Your task to perform on an android device: set an alarm Image 0: 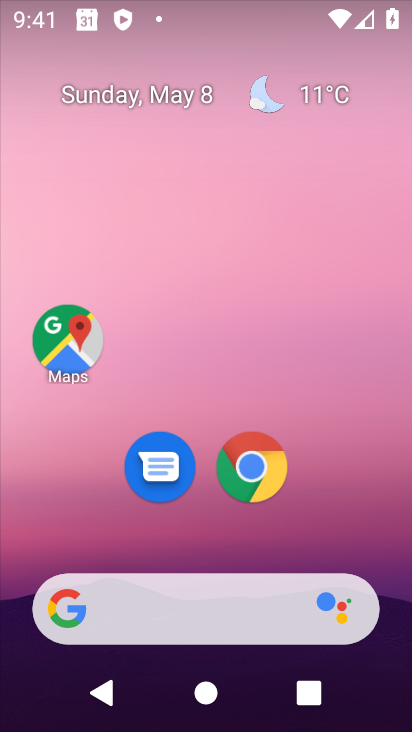
Step 0: drag from (48, 559) to (277, 182)
Your task to perform on an android device: set an alarm Image 1: 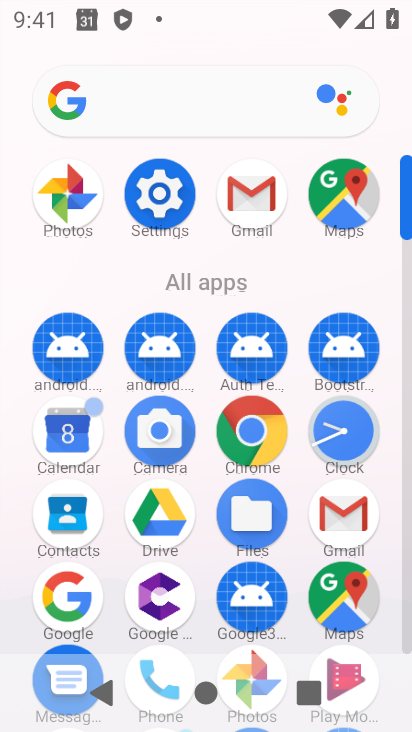
Step 1: drag from (134, 606) to (272, 254)
Your task to perform on an android device: set an alarm Image 2: 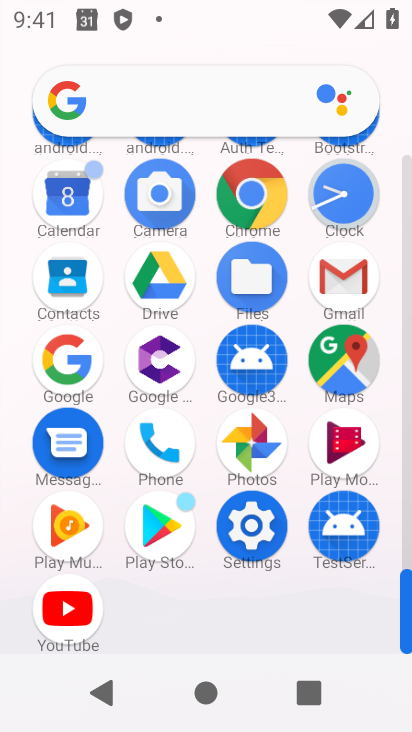
Step 2: click (322, 215)
Your task to perform on an android device: set an alarm Image 3: 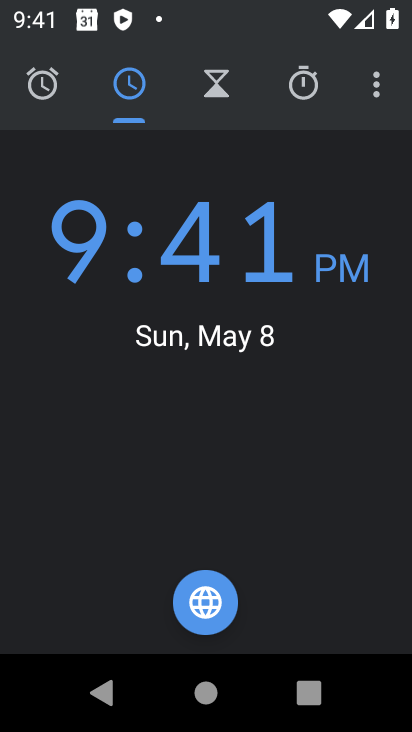
Step 3: click (30, 82)
Your task to perform on an android device: set an alarm Image 4: 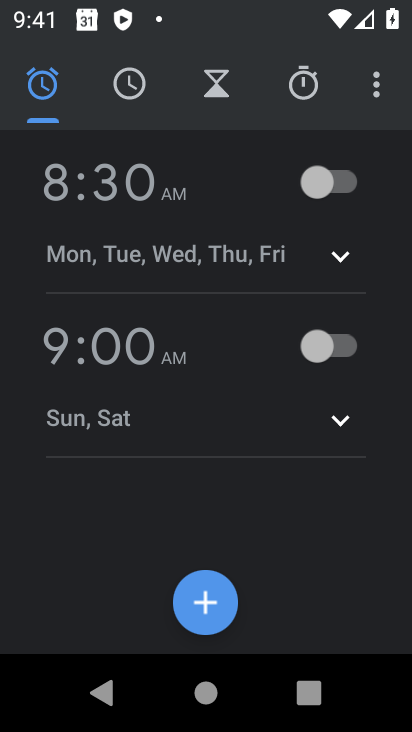
Step 4: click (210, 601)
Your task to perform on an android device: set an alarm Image 5: 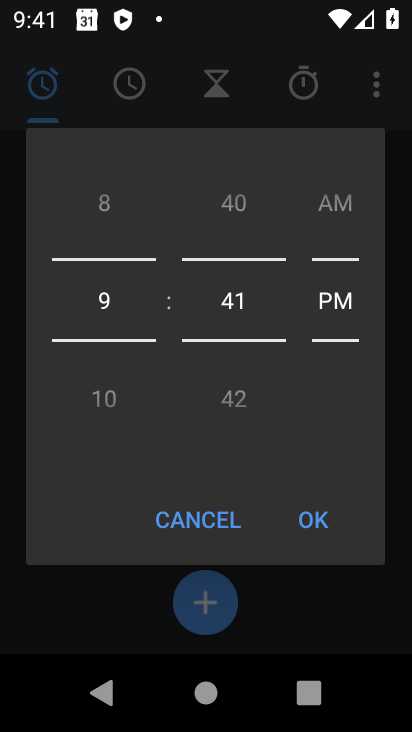
Step 5: click (246, 214)
Your task to perform on an android device: set an alarm Image 6: 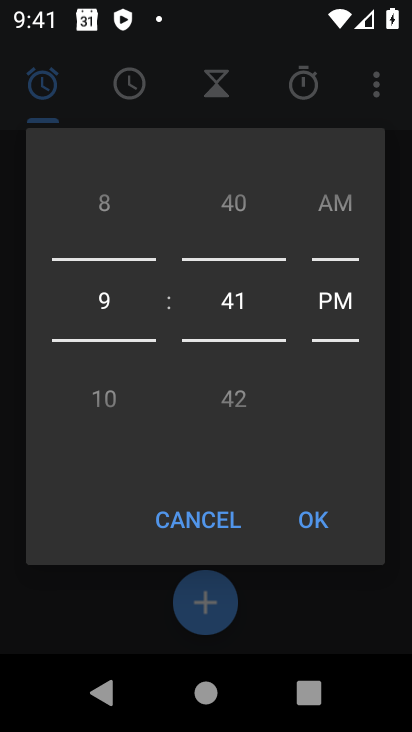
Step 6: drag from (338, 195) to (341, 390)
Your task to perform on an android device: set an alarm Image 7: 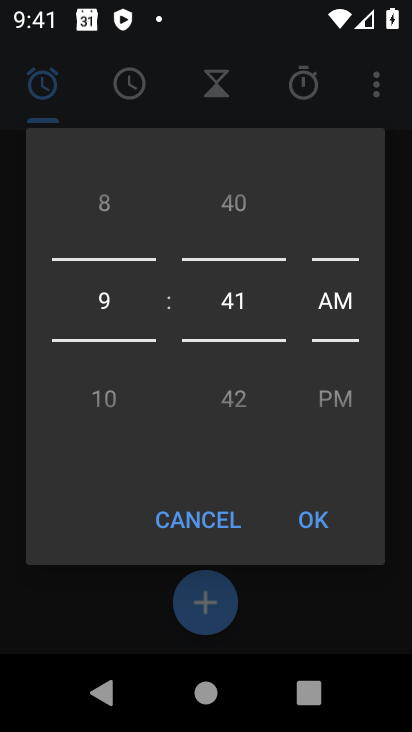
Step 7: click (315, 527)
Your task to perform on an android device: set an alarm Image 8: 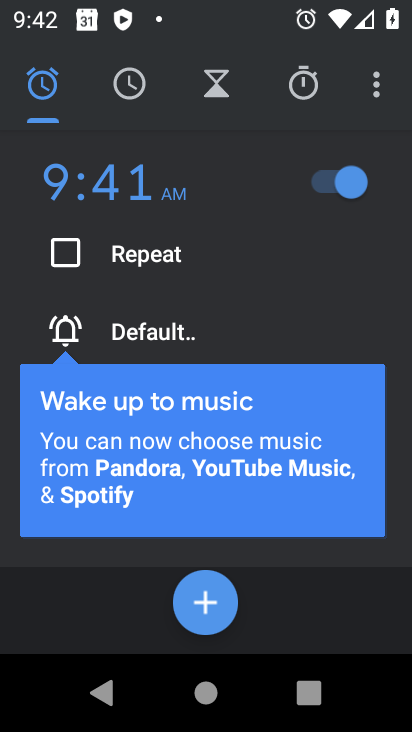
Step 8: task complete